Your task to perform on an android device: View the shopping cart on costco. Search for "bose soundsport free" on costco, select the first entry, and add it to the cart. Image 0: 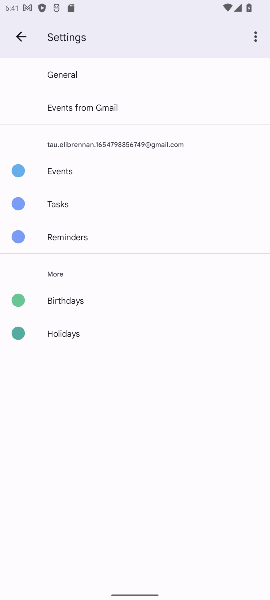
Step 0: press home button
Your task to perform on an android device: View the shopping cart on costco. Search for "bose soundsport free" on costco, select the first entry, and add it to the cart. Image 1: 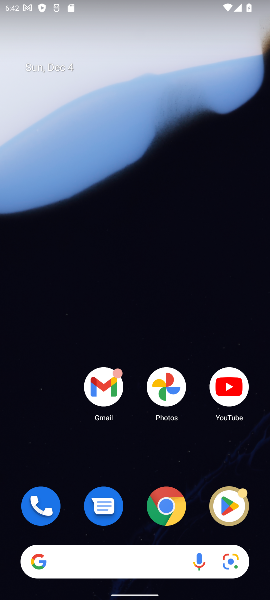
Step 1: click (156, 510)
Your task to perform on an android device: View the shopping cart on costco. Search for "bose soundsport free" on costco, select the first entry, and add it to the cart. Image 2: 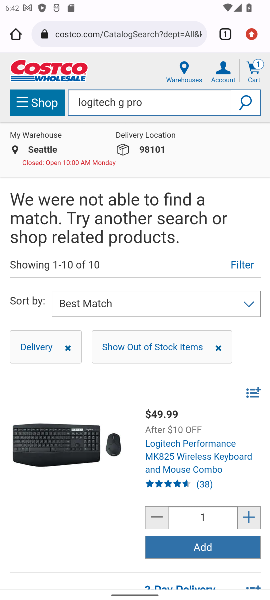
Step 2: click (251, 66)
Your task to perform on an android device: View the shopping cart on costco. Search for "bose soundsport free" on costco, select the first entry, and add it to the cart. Image 3: 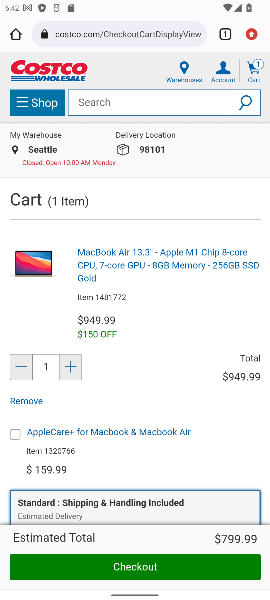
Step 3: type "bose soundsport free"
Your task to perform on an android device: View the shopping cart on costco. Search for "bose soundsport free" on costco, select the first entry, and add it to the cart. Image 4: 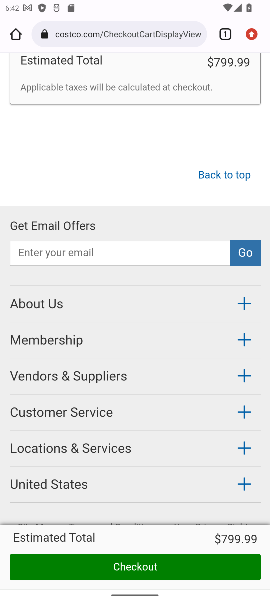
Step 4: drag from (122, 80) to (96, 590)
Your task to perform on an android device: View the shopping cart on costco. Search for "bose soundsport free" on costco, select the first entry, and add it to the cart. Image 5: 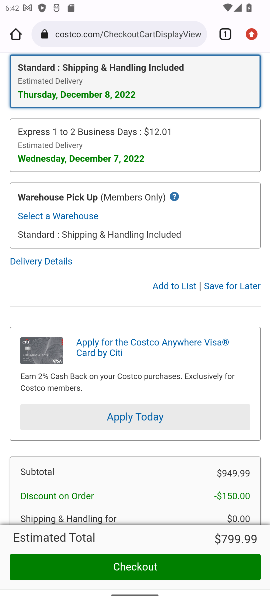
Step 5: drag from (169, 503) to (193, 205)
Your task to perform on an android device: View the shopping cart on costco. Search for "bose soundsport free" on costco, select the first entry, and add it to the cart. Image 6: 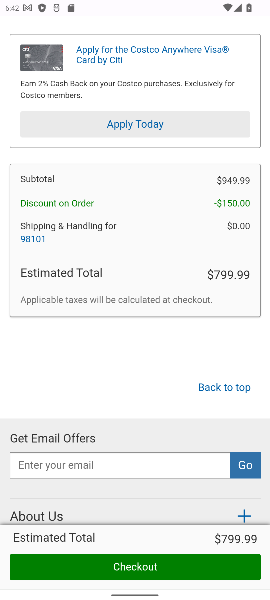
Step 6: click (216, 384)
Your task to perform on an android device: View the shopping cart on costco. Search for "bose soundsport free" on costco, select the first entry, and add it to the cart. Image 7: 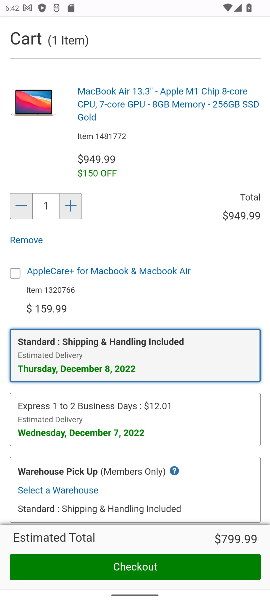
Step 7: drag from (153, 133) to (122, 413)
Your task to perform on an android device: View the shopping cart on costco. Search for "bose soundsport free" on costco, select the first entry, and add it to the cart. Image 8: 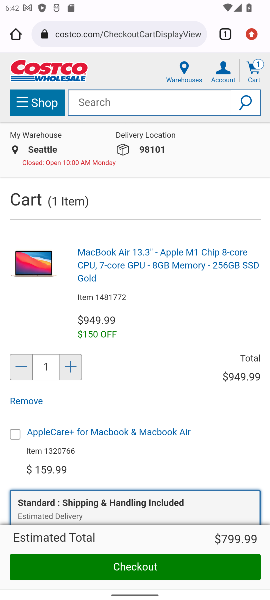
Step 8: click (91, 108)
Your task to perform on an android device: View the shopping cart on costco. Search for "bose soundsport free" on costco, select the first entry, and add it to the cart. Image 9: 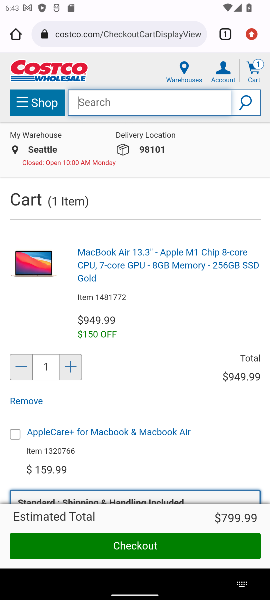
Step 9: type "bose soundsport free"
Your task to perform on an android device: View the shopping cart on costco. Search for "bose soundsport free" on costco, select the first entry, and add it to the cart. Image 10: 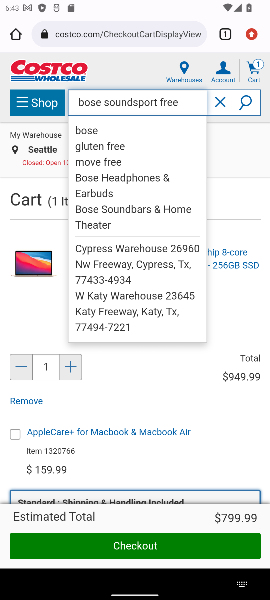
Step 10: click (244, 110)
Your task to perform on an android device: View the shopping cart on costco. Search for "bose soundsport free" on costco, select the first entry, and add it to the cart. Image 11: 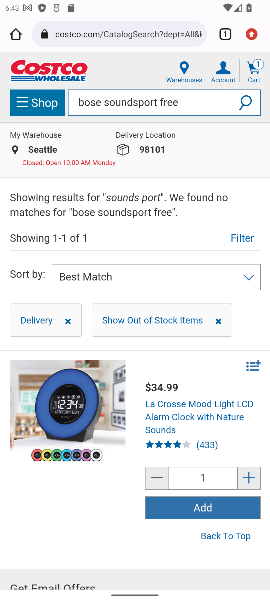
Step 11: task complete